Your task to perform on an android device: see sites visited before in the chrome app Image 0: 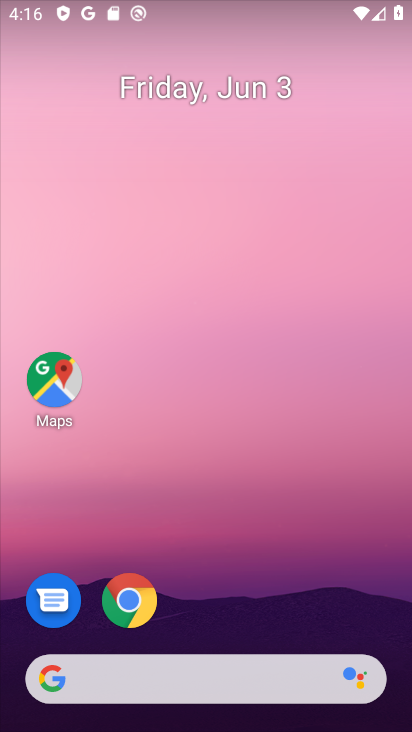
Step 0: click (129, 597)
Your task to perform on an android device: see sites visited before in the chrome app Image 1: 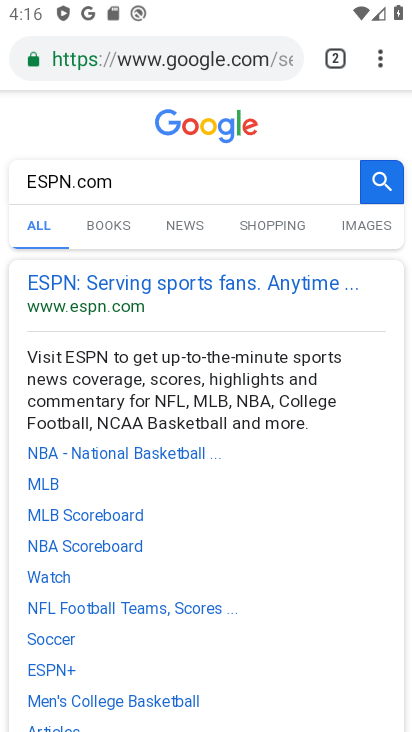
Step 1: click (375, 54)
Your task to perform on an android device: see sites visited before in the chrome app Image 2: 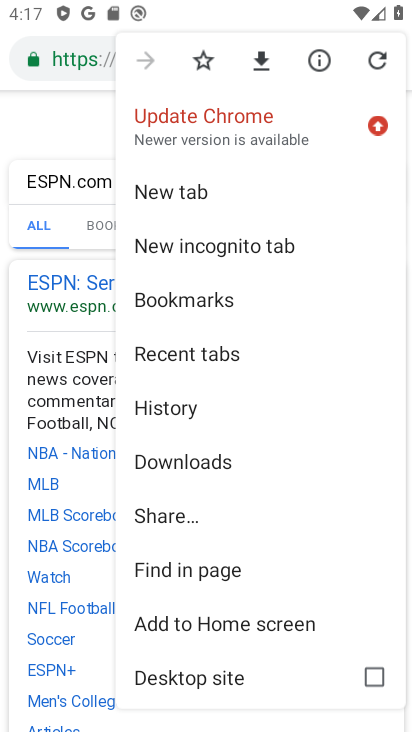
Step 2: click (179, 359)
Your task to perform on an android device: see sites visited before in the chrome app Image 3: 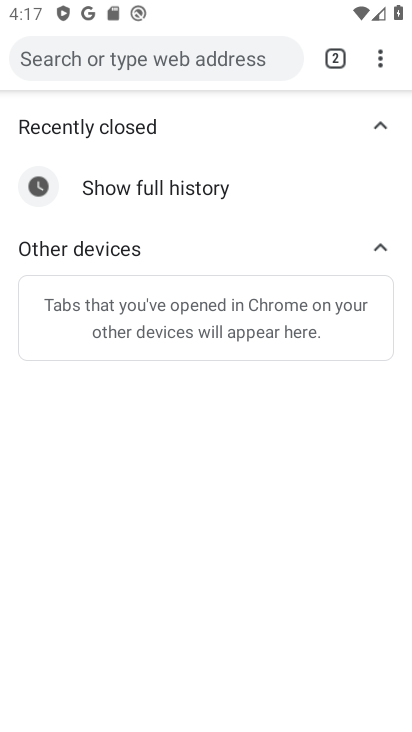
Step 3: click (377, 50)
Your task to perform on an android device: see sites visited before in the chrome app Image 4: 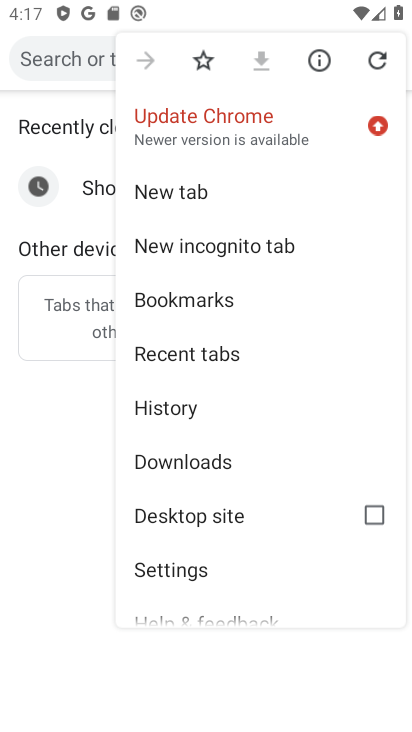
Step 4: press back button
Your task to perform on an android device: see sites visited before in the chrome app Image 5: 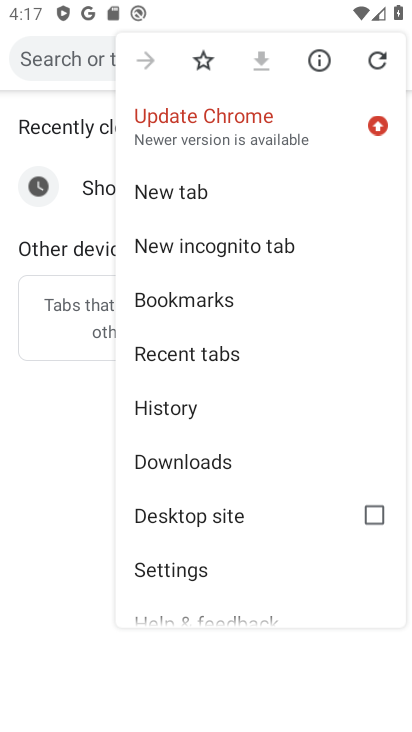
Step 5: click (165, 345)
Your task to perform on an android device: see sites visited before in the chrome app Image 6: 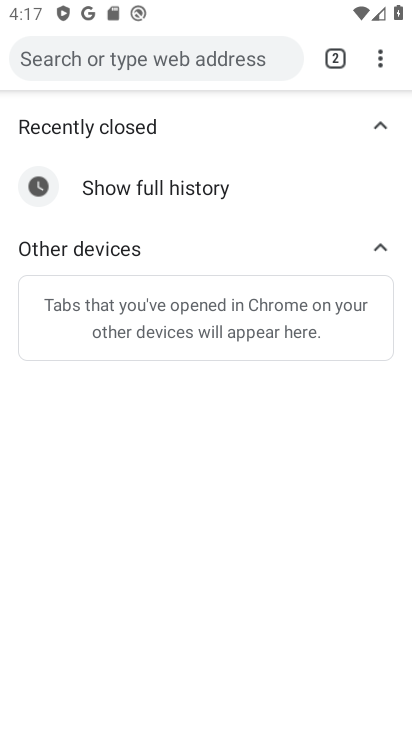
Step 6: task complete